Your task to perform on an android device: move an email to a new category in the gmail app Image 0: 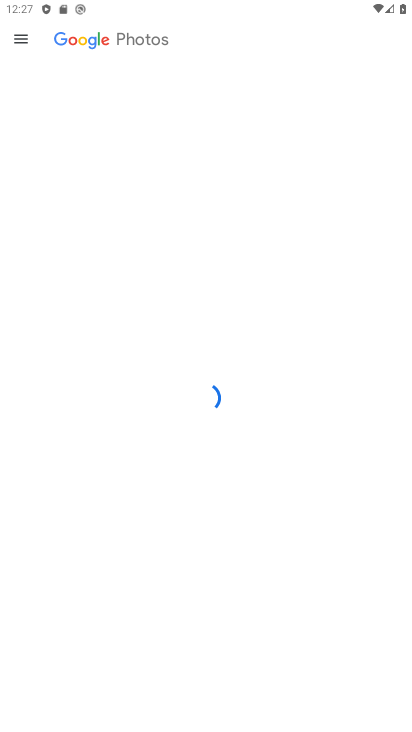
Step 0: press home button
Your task to perform on an android device: move an email to a new category in the gmail app Image 1: 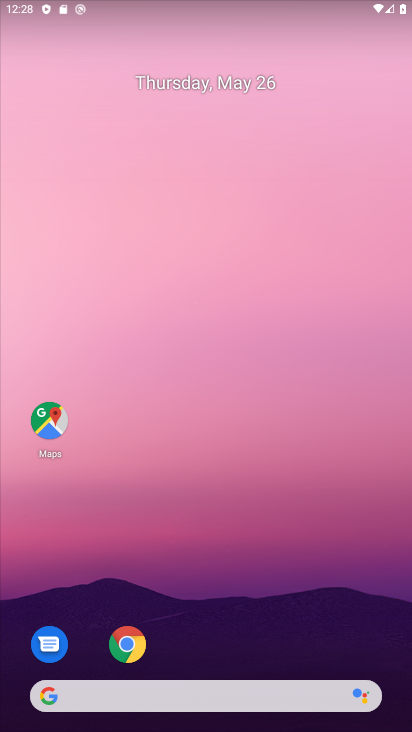
Step 1: drag from (5, 701) to (224, 201)
Your task to perform on an android device: move an email to a new category in the gmail app Image 2: 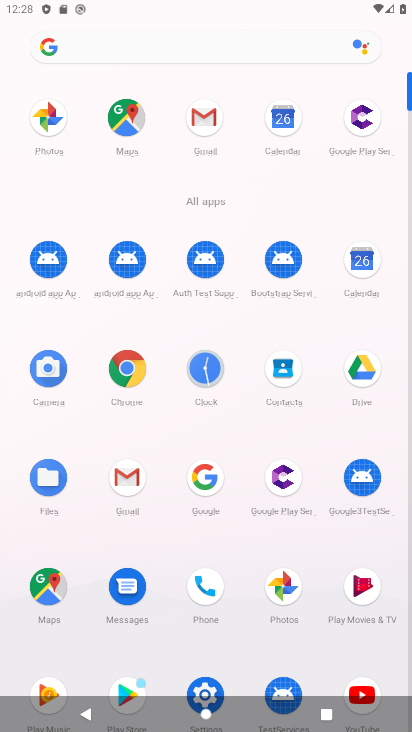
Step 2: click (187, 104)
Your task to perform on an android device: move an email to a new category in the gmail app Image 3: 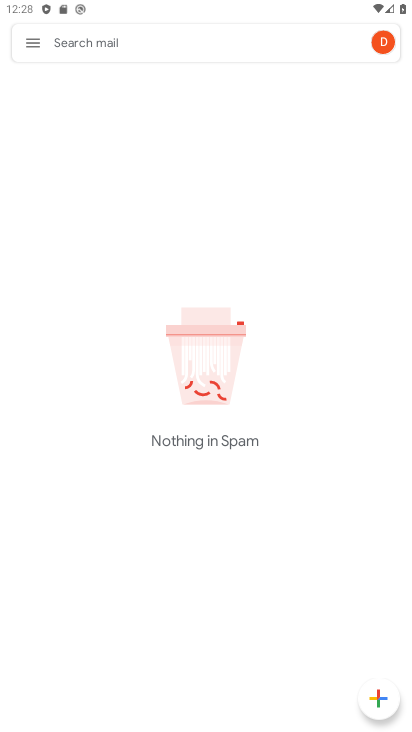
Step 3: click (38, 43)
Your task to perform on an android device: move an email to a new category in the gmail app Image 4: 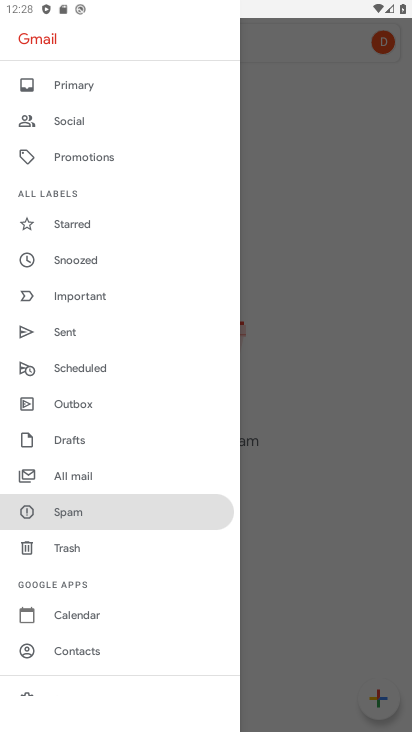
Step 4: click (70, 475)
Your task to perform on an android device: move an email to a new category in the gmail app Image 5: 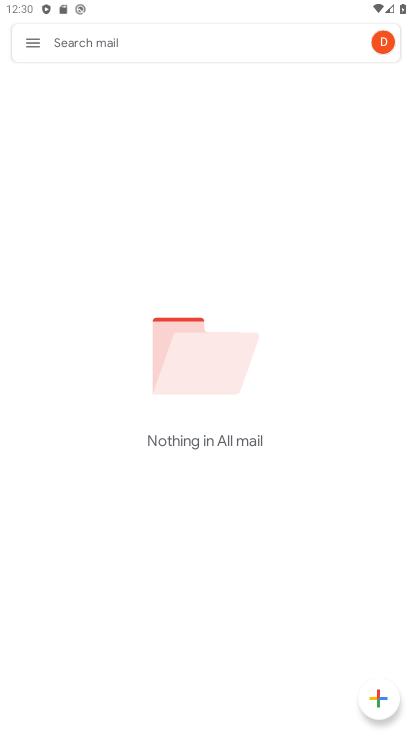
Step 5: task complete